Your task to perform on an android device: set an alarm Image 0: 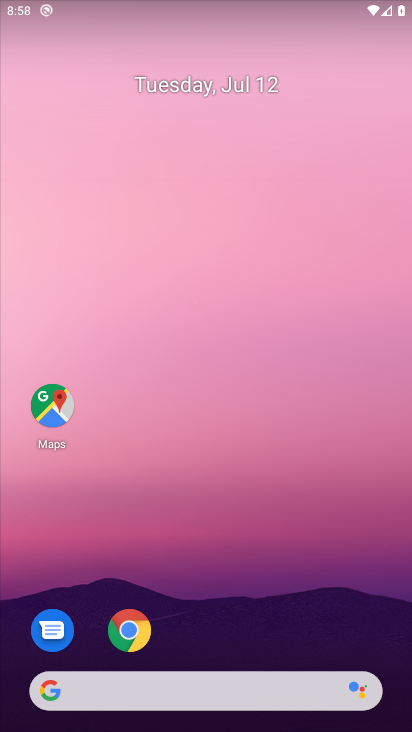
Step 0: press home button
Your task to perform on an android device: set an alarm Image 1: 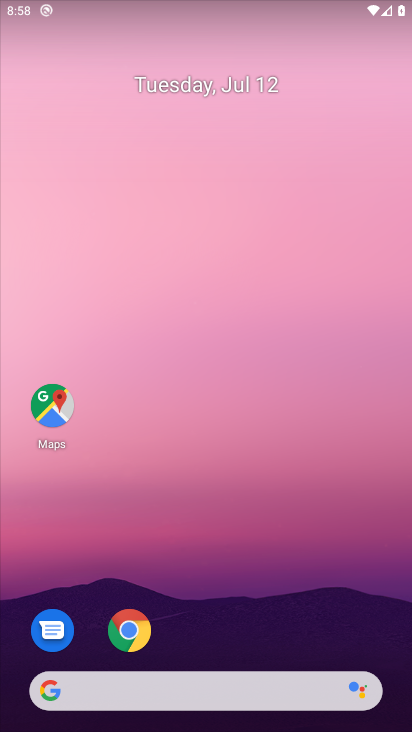
Step 1: drag from (247, 657) to (116, 155)
Your task to perform on an android device: set an alarm Image 2: 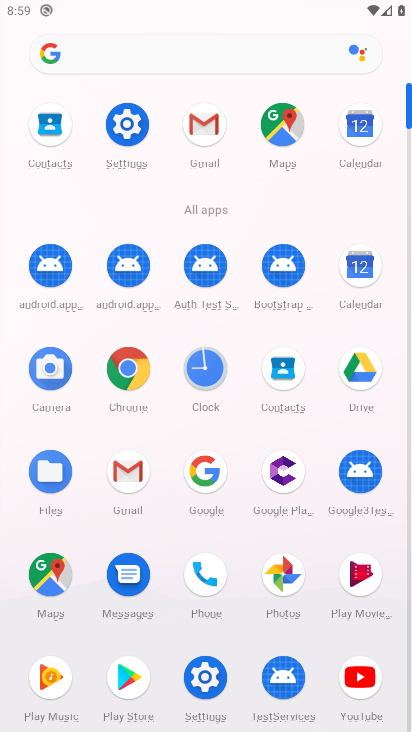
Step 2: click (205, 380)
Your task to perform on an android device: set an alarm Image 3: 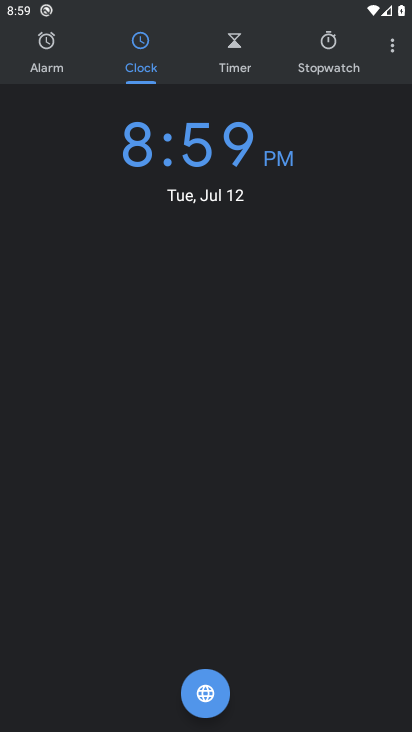
Step 3: click (61, 53)
Your task to perform on an android device: set an alarm Image 4: 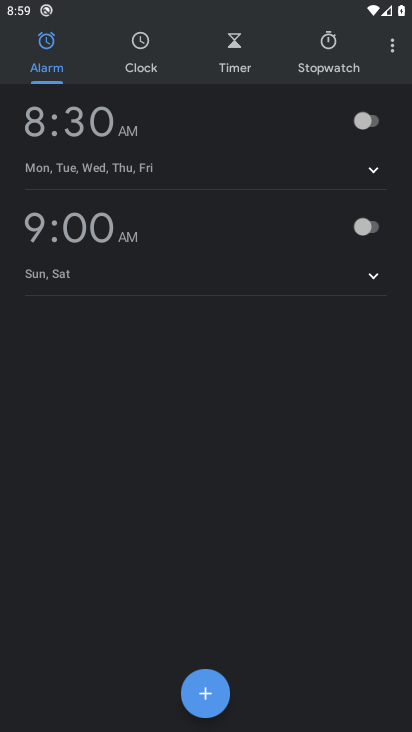
Step 4: click (360, 116)
Your task to perform on an android device: set an alarm Image 5: 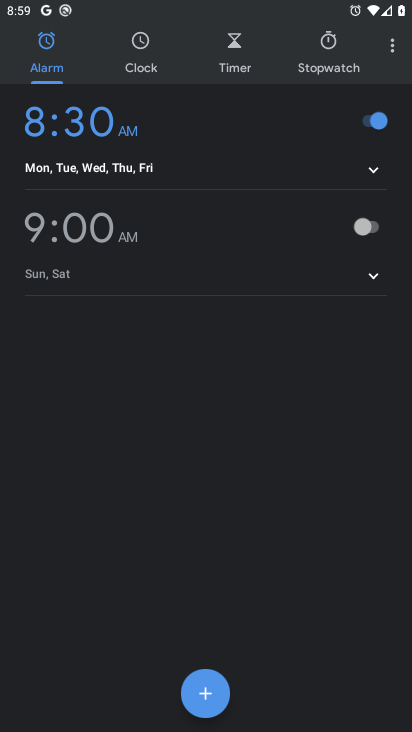
Step 5: task complete